Your task to perform on an android device: Set the phone to "Do not disturb". Image 0: 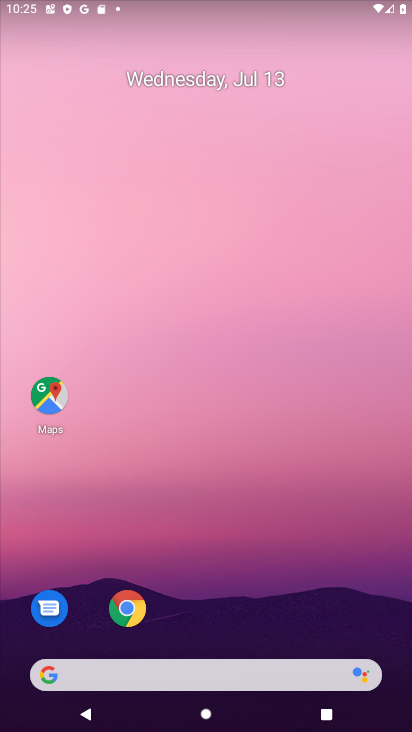
Step 0: drag from (181, 668) to (211, 99)
Your task to perform on an android device: Set the phone to "Do not disturb". Image 1: 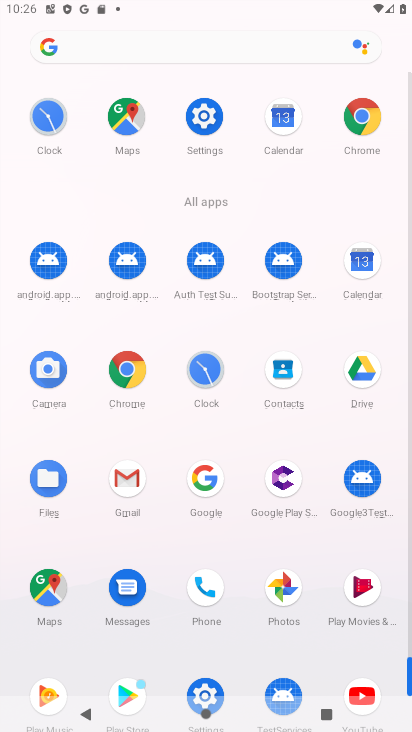
Step 1: click (204, 117)
Your task to perform on an android device: Set the phone to "Do not disturb". Image 2: 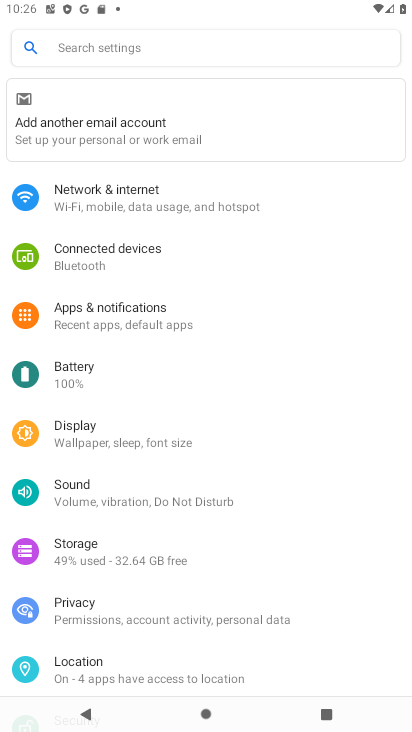
Step 2: click (115, 493)
Your task to perform on an android device: Set the phone to "Do not disturb". Image 3: 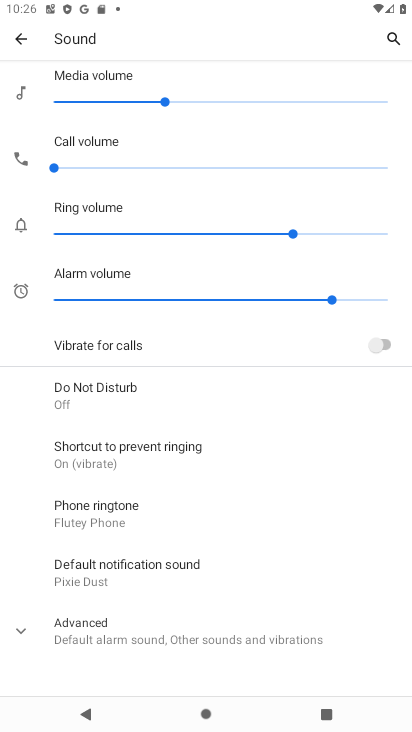
Step 3: click (119, 391)
Your task to perform on an android device: Set the phone to "Do not disturb". Image 4: 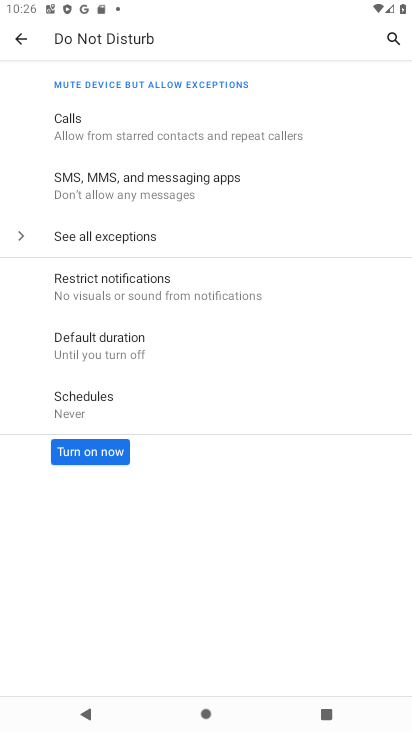
Step 4: click (101, 454)
Your task to perform on an android device: Set the phone to "Do not disturb". Image 5: 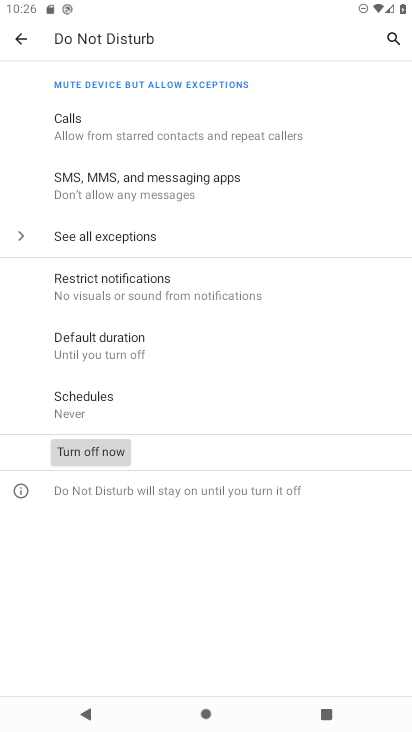
Step 5: task complete